Your task to perform on an android device: turn off improve location accuracy Image 0: 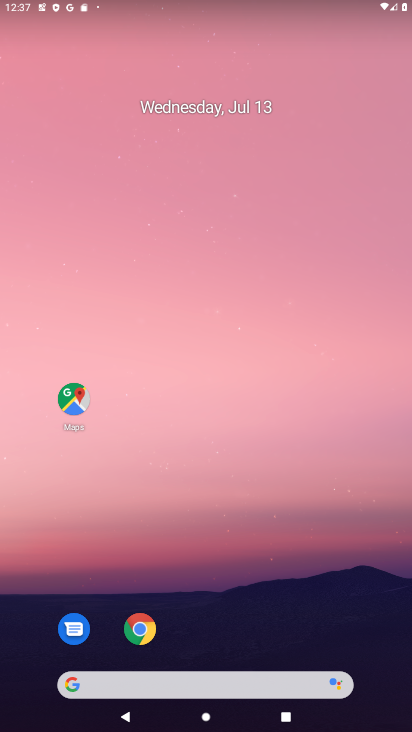
Step 0: drag from (234, 669) to (234, 304)
Your task to perform on an android device: turn off improve location accuracy Image 1: 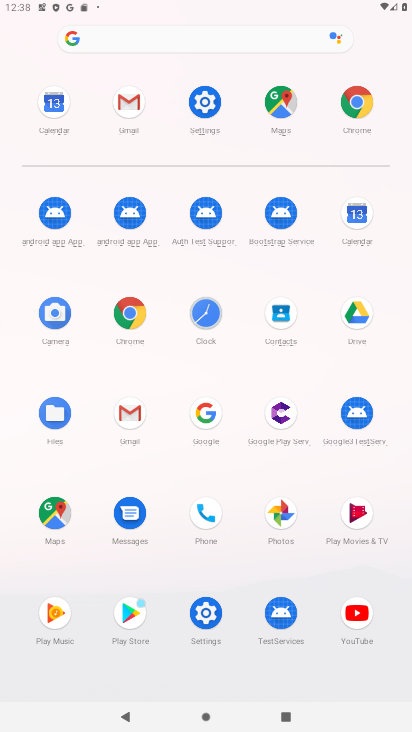
Step 1: click (193, 87)
Your task to perform on an android device: turn off improve location accuracy Image 2: 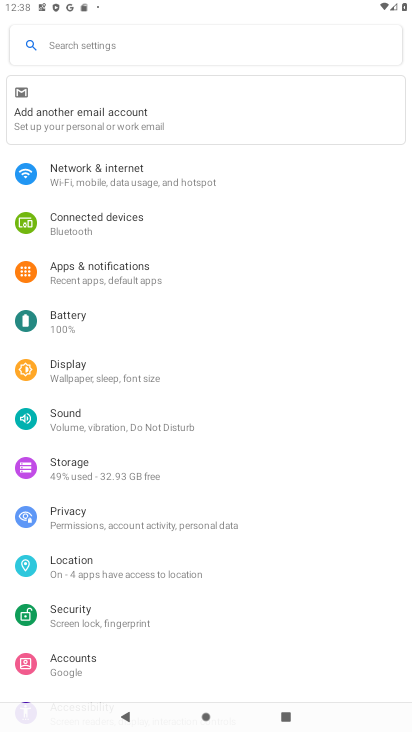
Step 2: click (98, 563)
Your task to perform on an android device: turn off improve location accuracy Image 3: 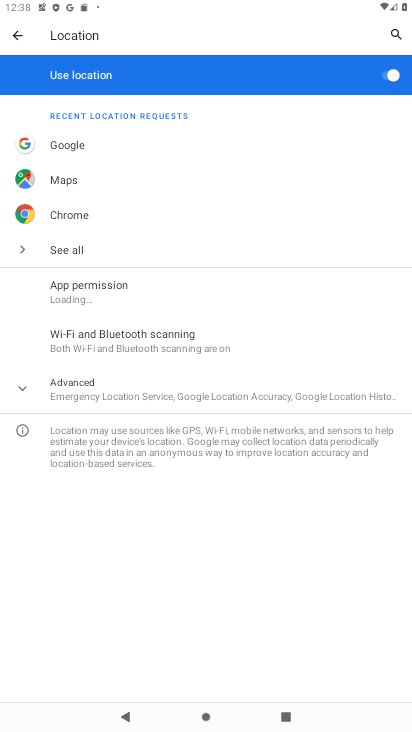
Step 3: click (165, 389)
Your task to perform on an android device: turn off improve location accuracy Image 4: 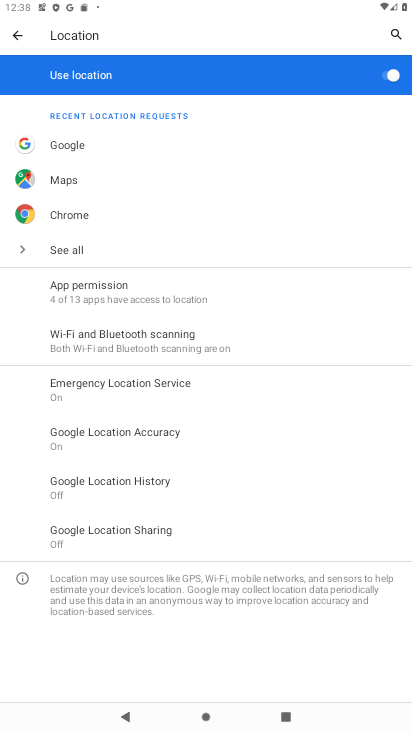
Step 4: click (152, 442)
Your task to perform on an android device: turn off improve location accuracy Image 5: 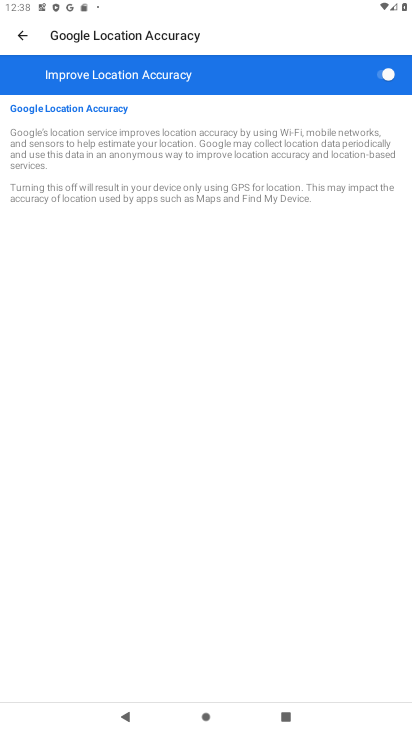
Step 5: click (378, 61)
Your task to perform on an android device: turn off improve location accuracy Image 6: 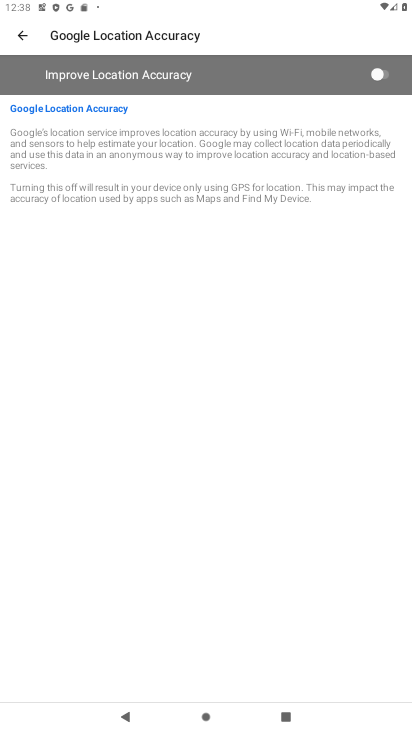
Step 6: task complete